Your task to perform on an android device: Open the phone app and click the voicemail tab. Image 0: 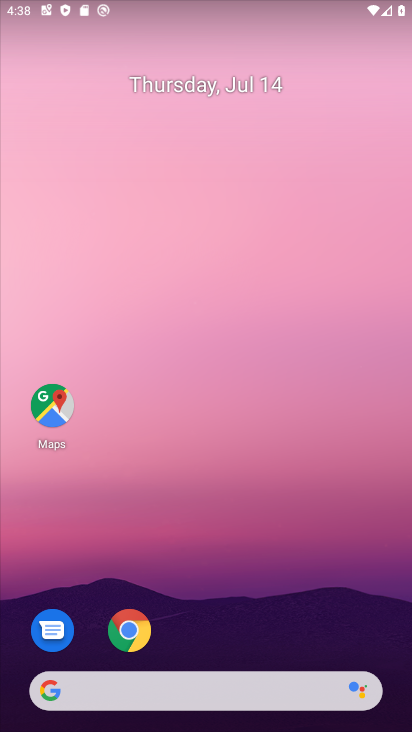
Step 0: drag from (287, 686) to (319, 53)
Your task to perform on an android device: Open the phone app and click the voicemail tab. Image 1: 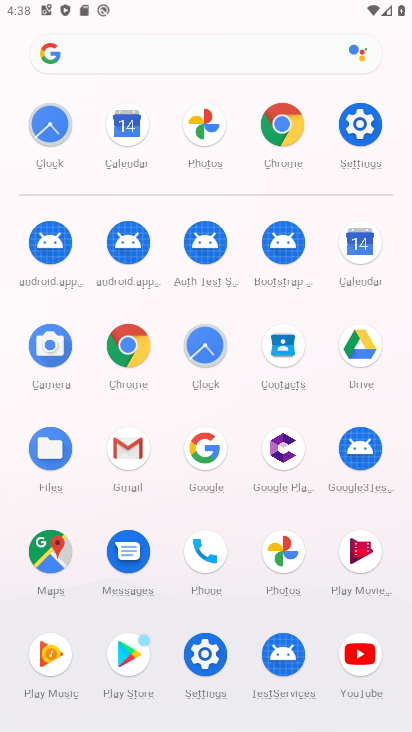
Step 1: click (199, 555)
Your task to perform on an android device: Open the phone app and click the voicemail tab. Image 2: 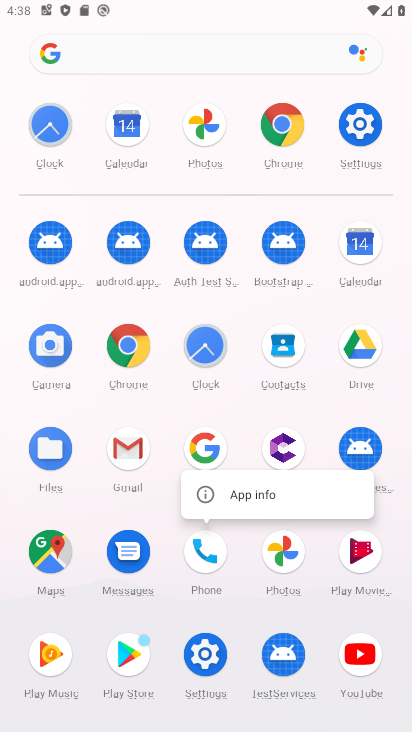
Step 2: click (205, 555)
Your task to perform on an android device: Open the phone app and click the voicemail tab. Image 3: 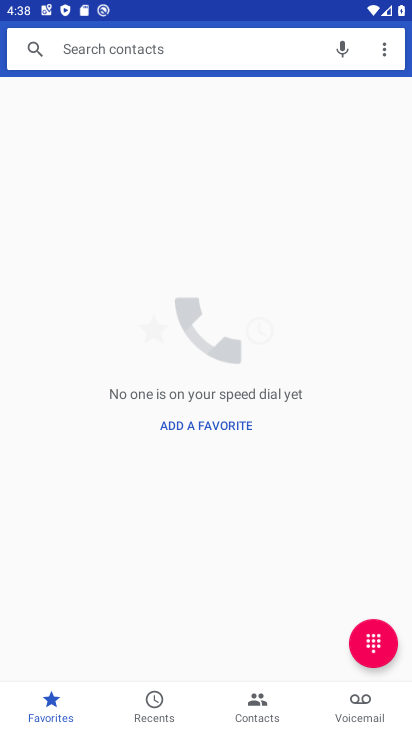
Step 3: click (382, 699)
Your task to perform on an android device: Open the phone app and click the voicemail tab. Image 4: 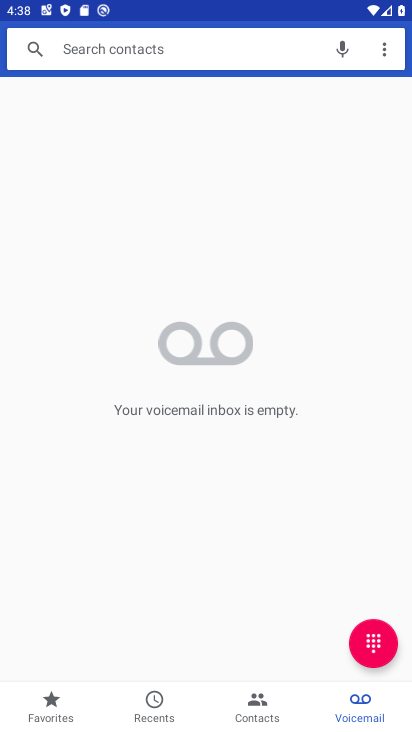
Step 4: task complete